Your task to perform on an android device: turn on javascript in the chrome app Image 0: 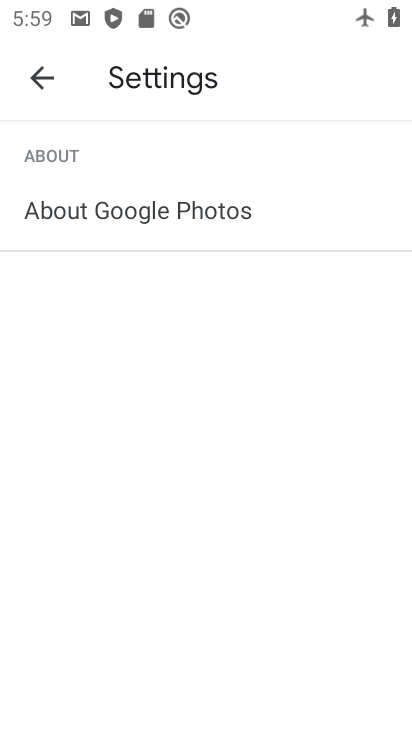
Step 0: press home button
Your task to perform on an android device: turn on javascript in the chrome app Image 1: 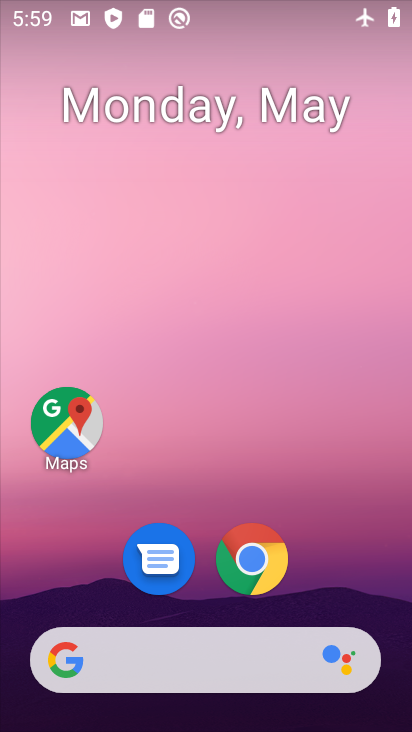
Step 1: click (257, 563)
Your task to perform on an android device: turn on javascript in the chrome app Image 2: 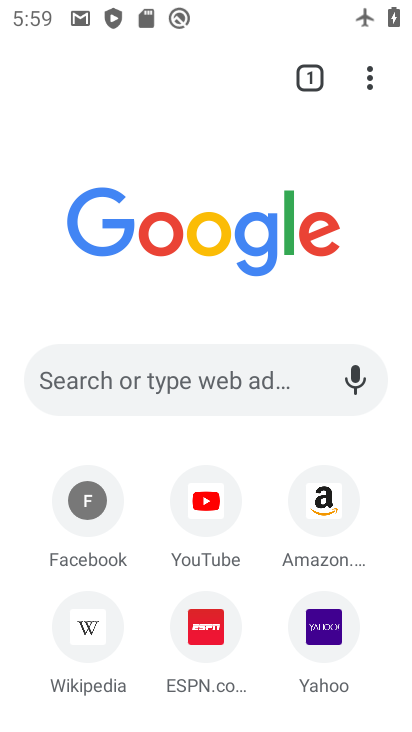
Step 2: click (370, 75)
Your task to perform on an android device: turn on javascript in the chrome app Image 3: 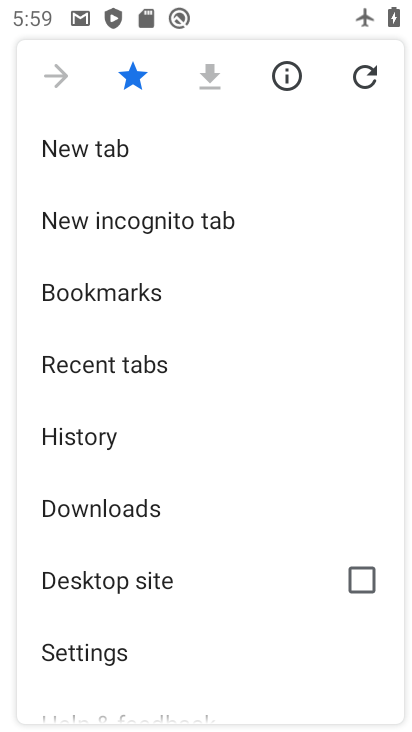
Step 3: drag from (229, 557) to (194, 227)
Your task to perform on an android device: turn on javascript in the chrome app Image 4: 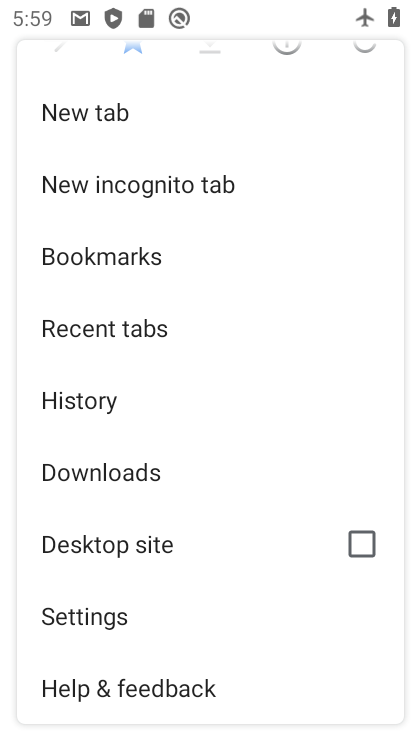
Step 4: click (103, 617)
Your task to perform on an android device: turn on javascript in the chrome app Image 5: 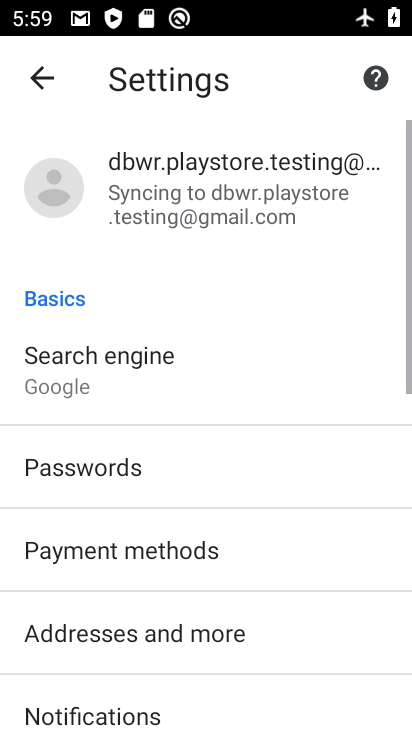
Step 5: drag from (238, 581) to (200, 207)
Your task to perform on an android device: turn on javascript in the chrome app Image 6: 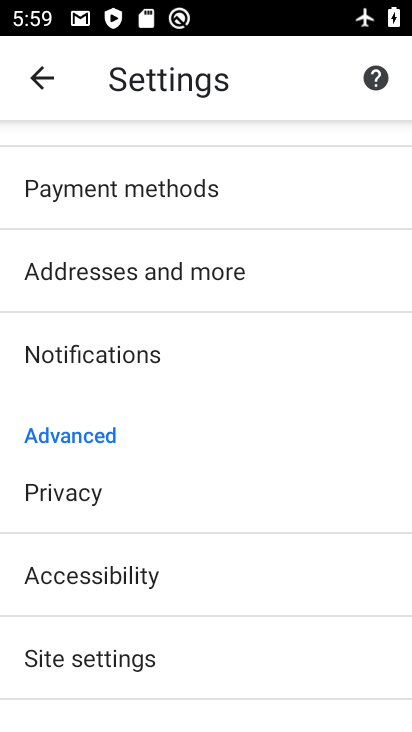
Step 6: drag from (213, 606) to (198, 342)
Your task to perform on an android device: turn on javascript in the chrome app Image 7: 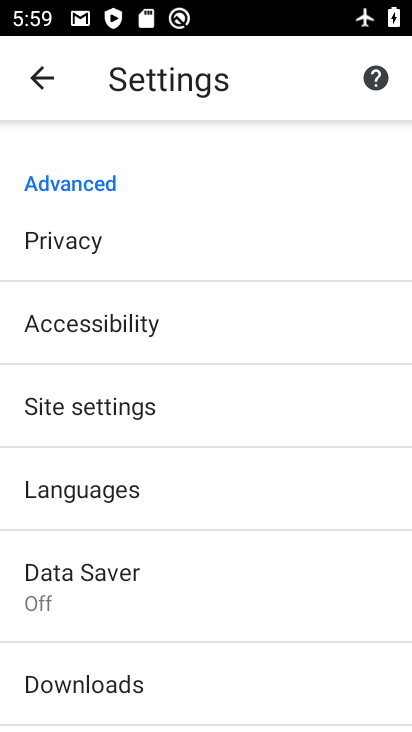
Step 7: click (124, 402)
Your task to perform on an android device: turn on javascript in the chrome app Image 8: 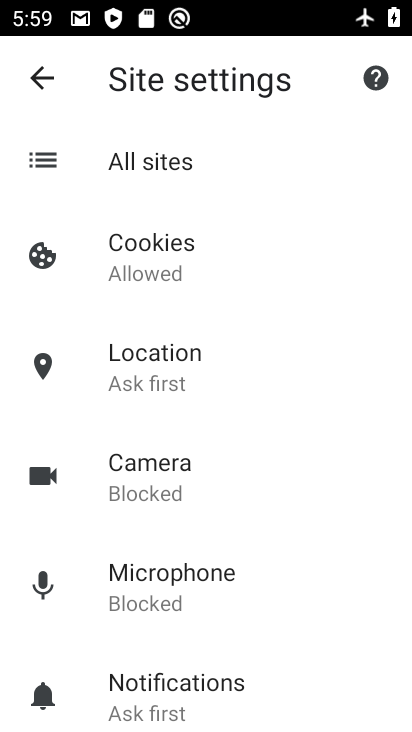
Step 8: drag from (259, 486) to (201, 214)
Your task to perform on an android device: turn on javascript in the chrome app Image 9: 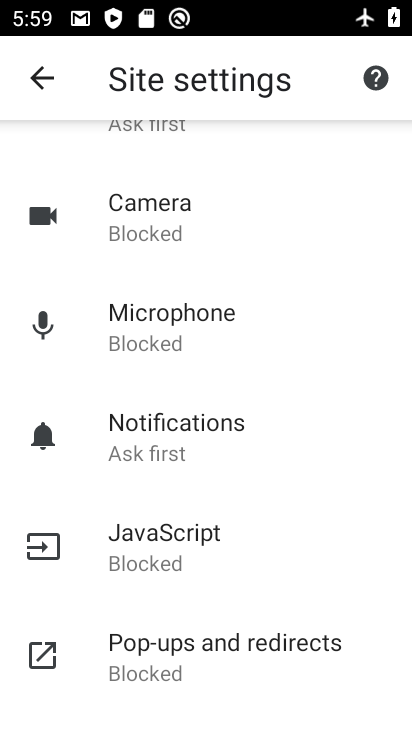
Step 9: click (171, 531)
Your task to perform on an android device: turn on javascript in the chrome app Image 10: 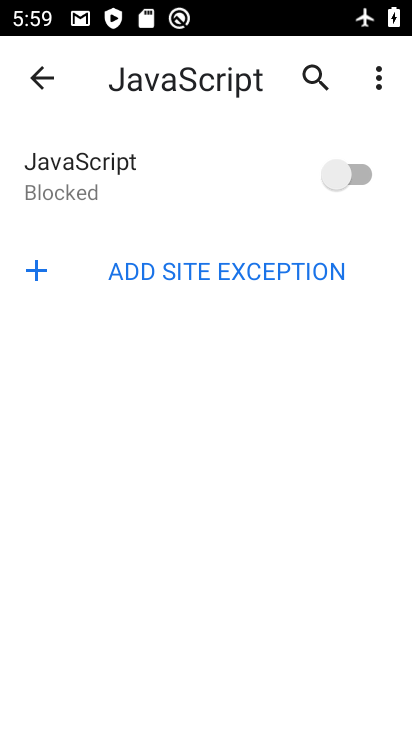
Step 10: click (352, 171)
Your task to perform on an android device: turn on javascript in the chrome app Image 11: 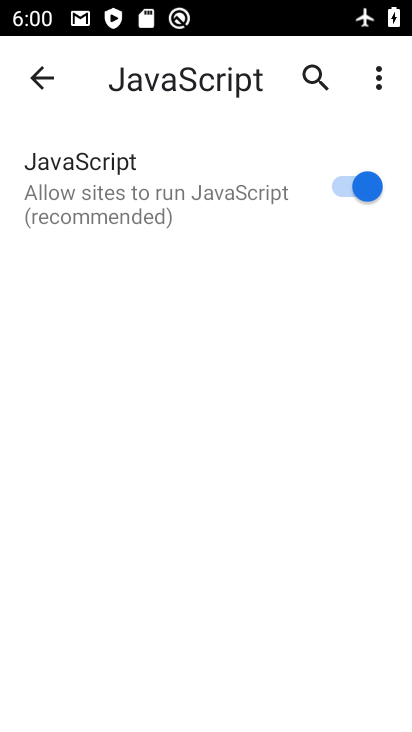
Step 11: task complete